Your task to perform on an android device: visit the assistant section in the google photos Image 0: 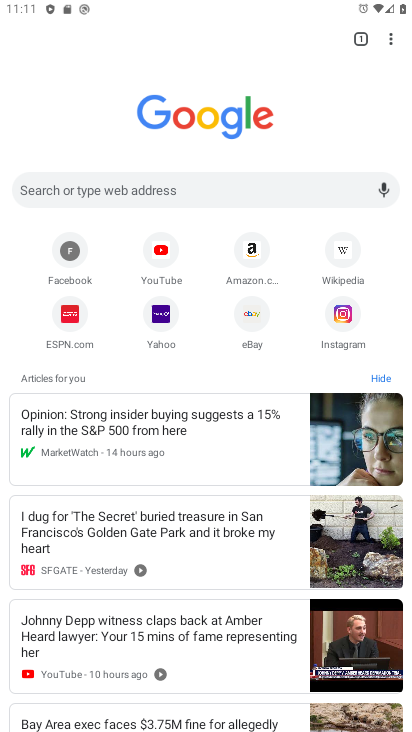
Step 0: press home button
Your task to perform on an android device: visit the assistant section in the google photos Image 1: 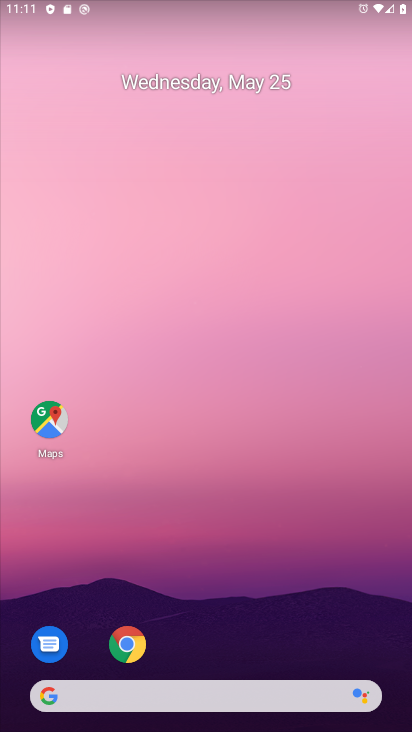
Step 1: drag from (241, 636) to (174, 147)
Your task to perform on an android device: visit the assistant section in the google photos Image 2: 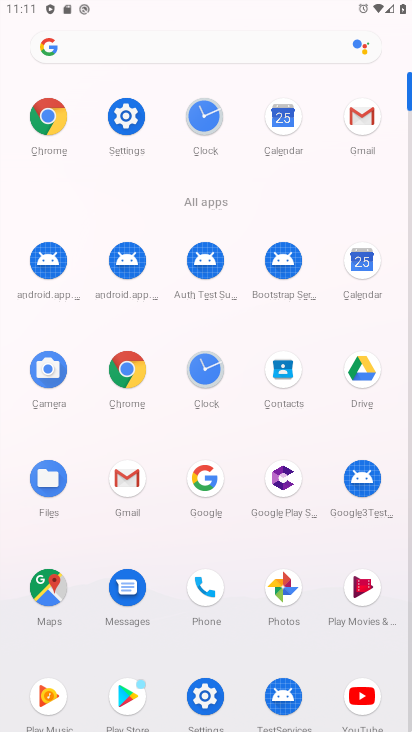
Step 2: click (284, 587)
Your task to perform on an android device: visit the assistant section in the google photos Image 3: 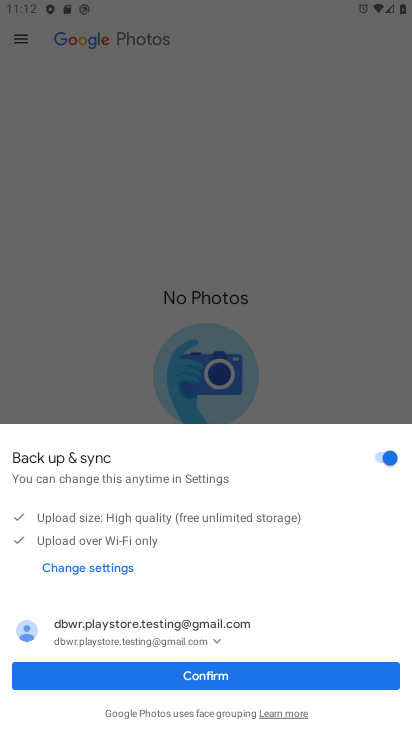
Step 3: click (209, 673)
Your task to perform on an android device: visit the assistant section in the google photos Image 4: 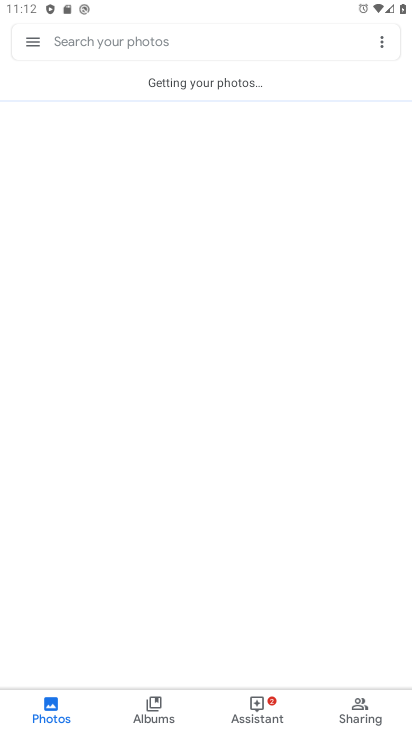
Step 4: click (259, 710)
Your task to perform on an android device: visit the assistant section in the google photos Image 5: 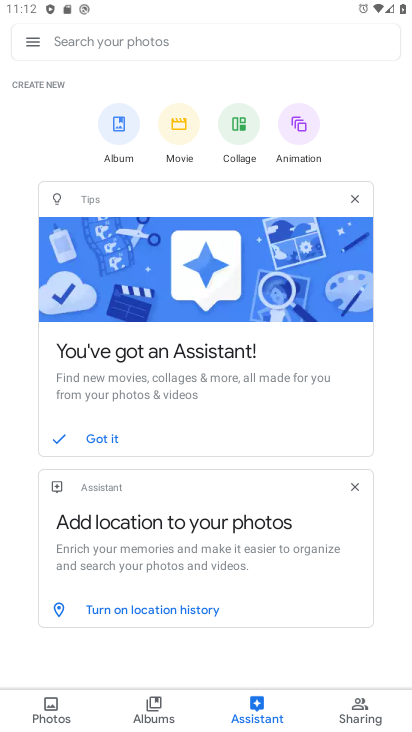
Step 5: task complete